Your task to perform on an android device: Open the Play Movies app and select the watchlist tab. Image 0: 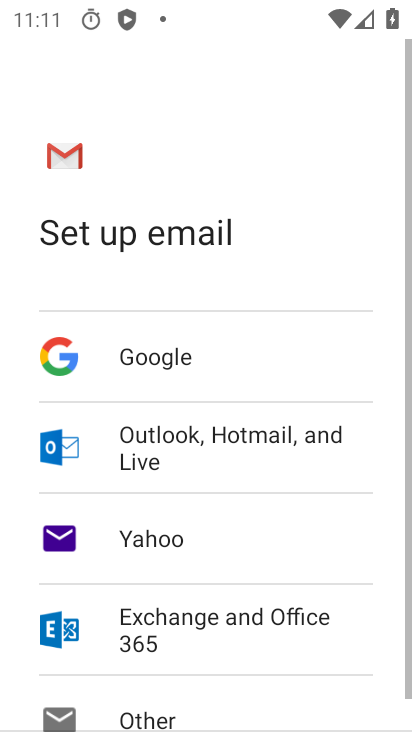
Step 0: press home button
Your task to perform on an android device: Open the Play Movies app and select the watchlist tab. Image 1: 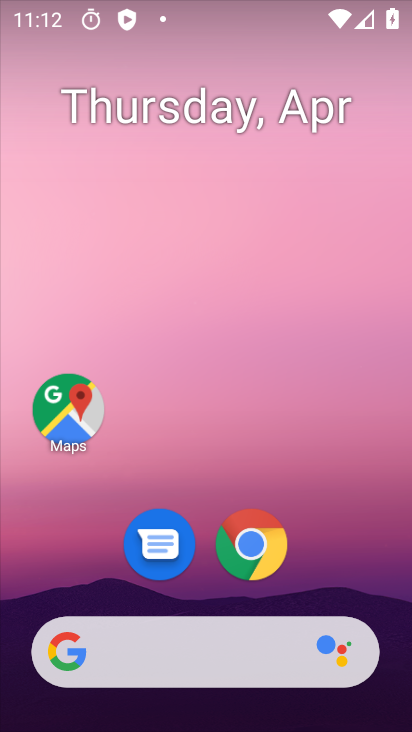
Step 1: click (300, 552)
Your task to perform on an android device: Open the Play Movies app and select the watchlist tab. Image 2: 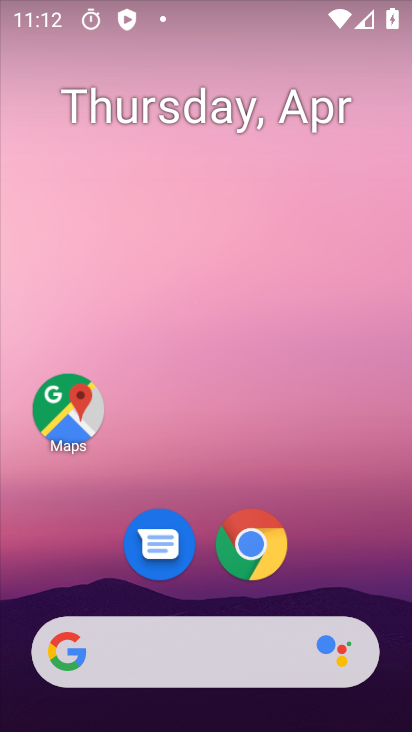
Step 2: drag from (142, 414) to (266, 159)
Your task to perform on an android device: Open the Play Movies app and select the watchlist tab. Image 3: 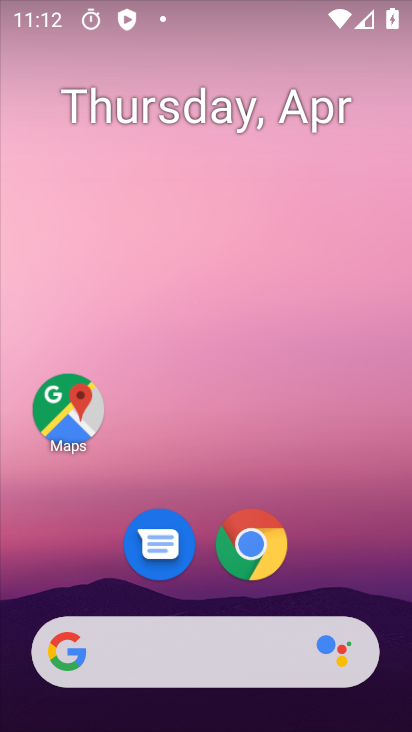
Step 3: drag from (23, 513) to (180, 191)
Your task to perform on an android device: Open the Play Movies app and select the watchlist tab. Image 4: 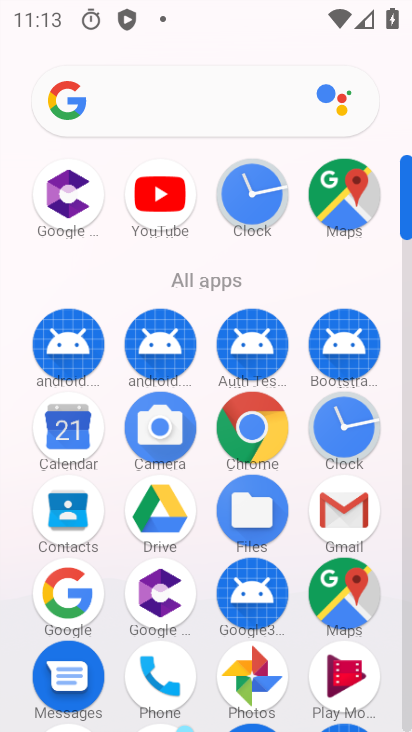
Step 4: click (328, 678)
Your task to perform on an android device: Open the Play Movies app and select the watchlist tab. Image 5: 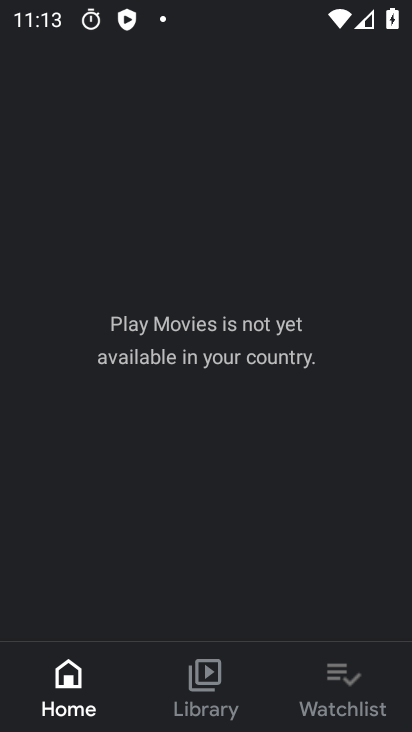
Step 5: click (335, 692)
Your task to perform on an android device: Open the Play Movies app and select the watchlist tab. Image 6: 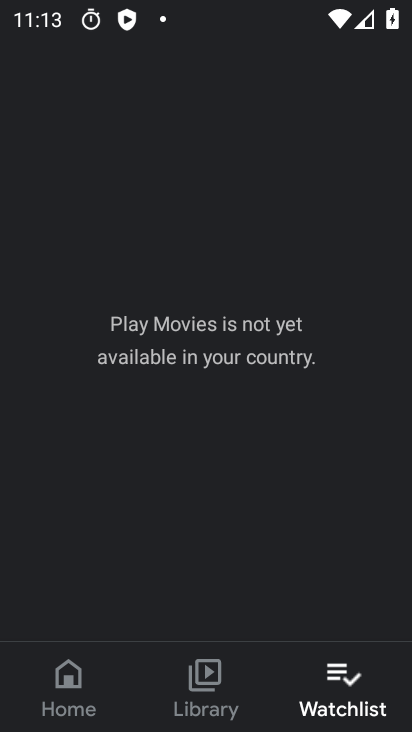
Step 6: task complete